Your task to perform on an android device: When is my next appointment? Image 0: 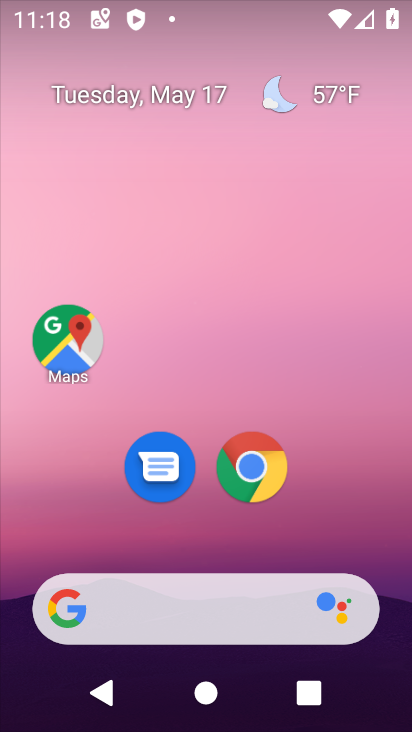
Step 0: drag from (275, 673) to (309, 182)
Your task to perform on an android device: When is my next appointment? Image 1: 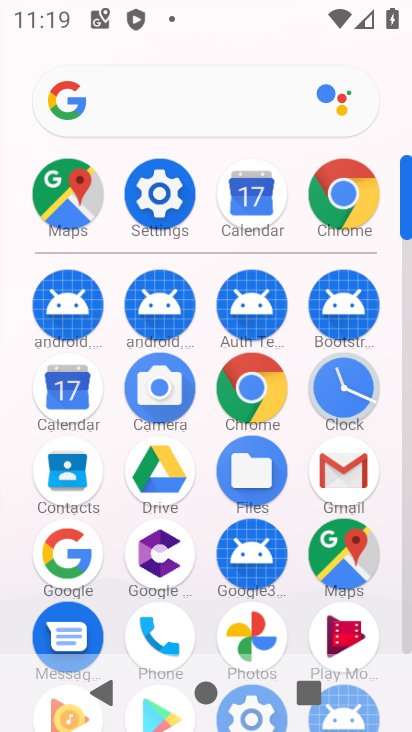
Step 1: click (84, 402)
Your task to perform on an android device: When is my next appointment? Image 2: 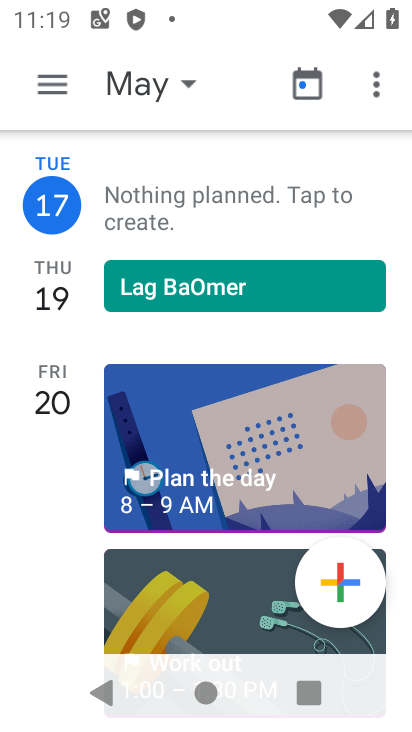
Step 2: task complete